Your task to perform on an android device: Open Chrome and go to settings Image 0: 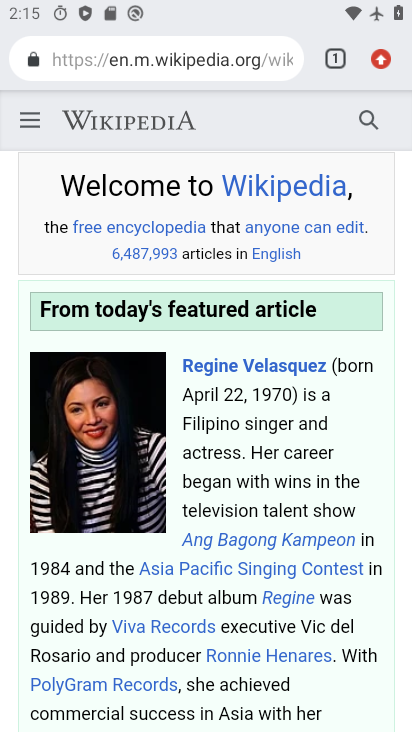
Step 0: drag from (373, 57) to (239, 617)
Your task to perform on an android device: Open Chrome and go to settings Image 1: 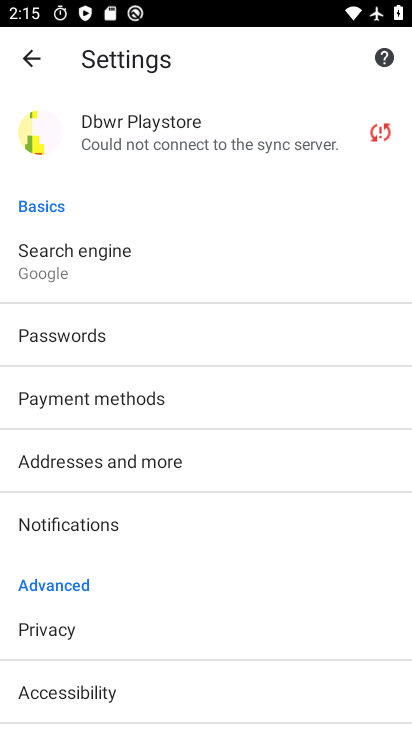
Step 1: task complete